Your task to perform on an android device: turn on location history Image 0: 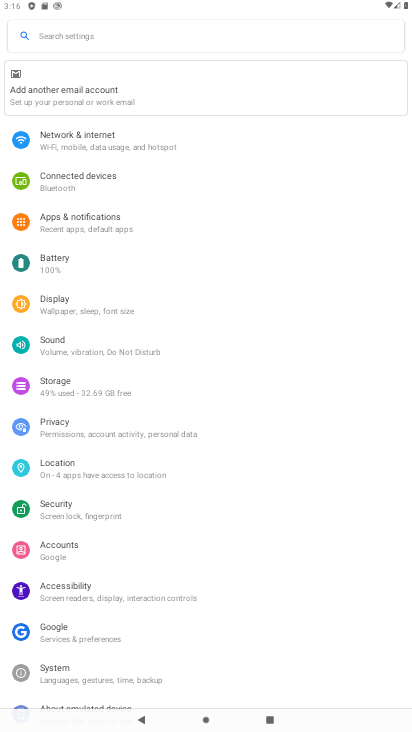
Step 0: press home button
Your task to perform on an android device: turn on location history Image 1: 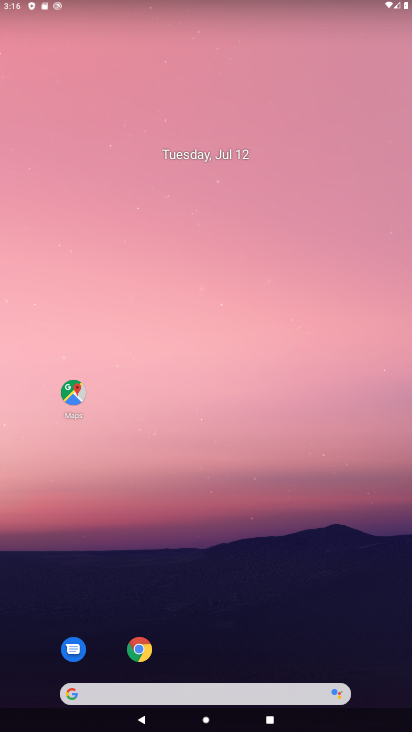
Step 1: drag from (202, 625) to (256, 7)
Your task to perform on an android device: turn on location history Image 2: 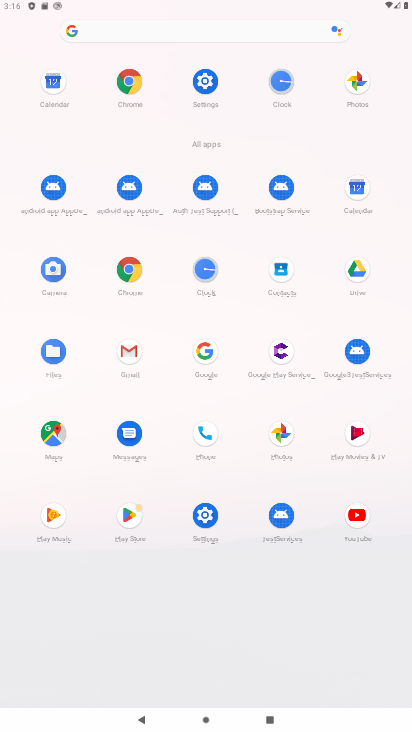
Step 2: click (202, 75)
Your task to perform on an android device: turn on location history Image 3: 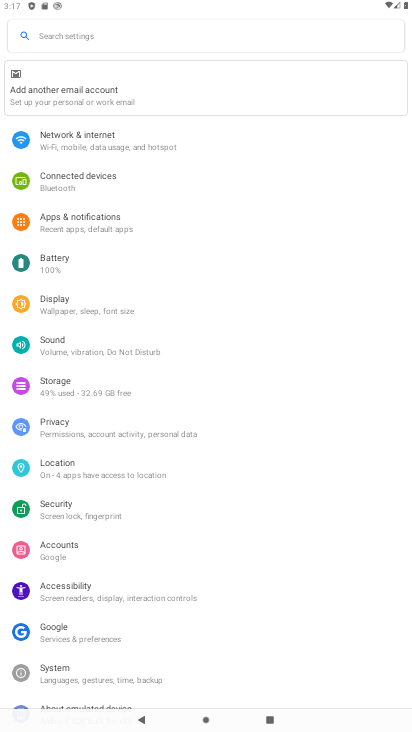
Step 3: click (88, 460)
Your task to perform on an android device: turn on location history Image 4: 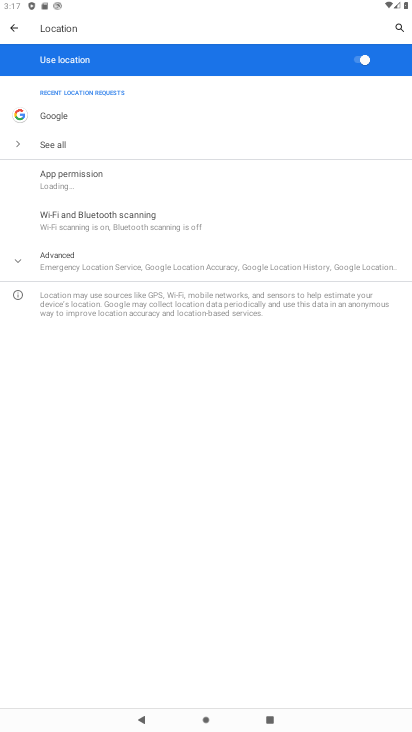
Step 4: click (40, 264)
Your task to perform on an android device: turn on location history Image 5: 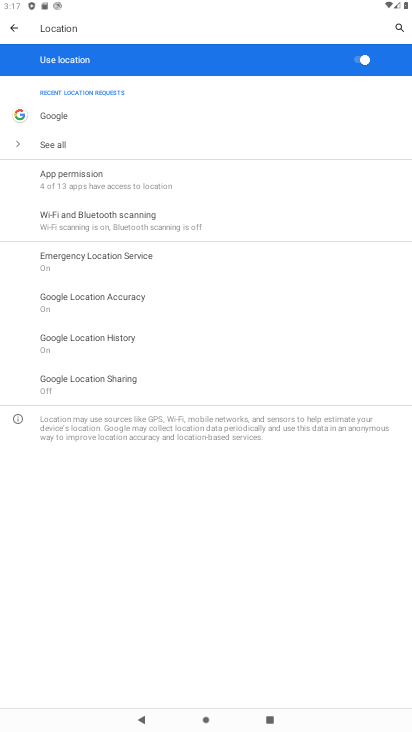
Step 5: click (112, 340)
Your task to perform on an android device: turn on location history Image 6: 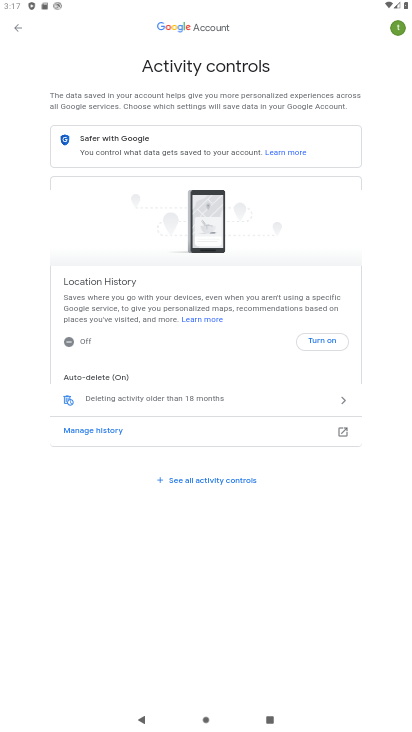
Step 6: click (323, 342)
Your task to perform on an android device: turn on location history Image 7: 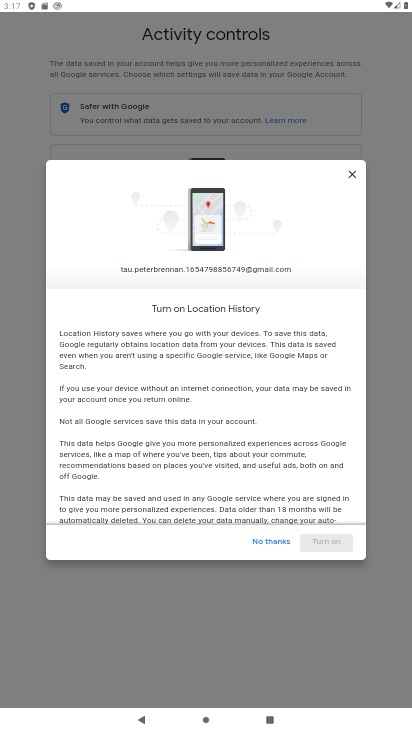
Step 7: drag from (312, 463) to (318, 47)
Your task to perform on an android device: turn on location history Image 8: 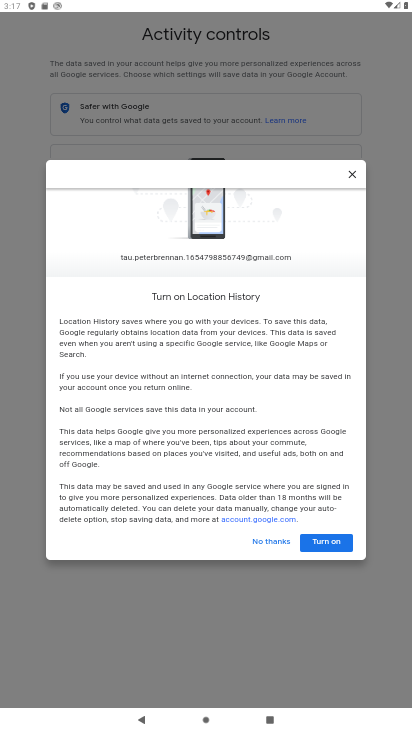
Step 8: click (320, 547)
Your task to perform on an android device: turn on location history Image 9: 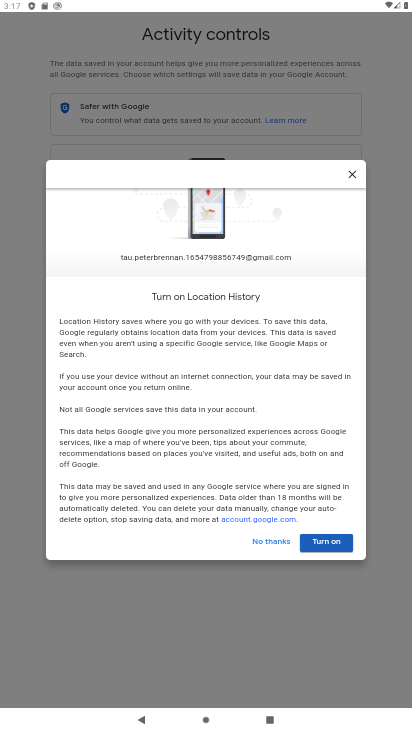
Step 9: click (332, 540)
Your task to perform on an android device: turn on location history Image 10: 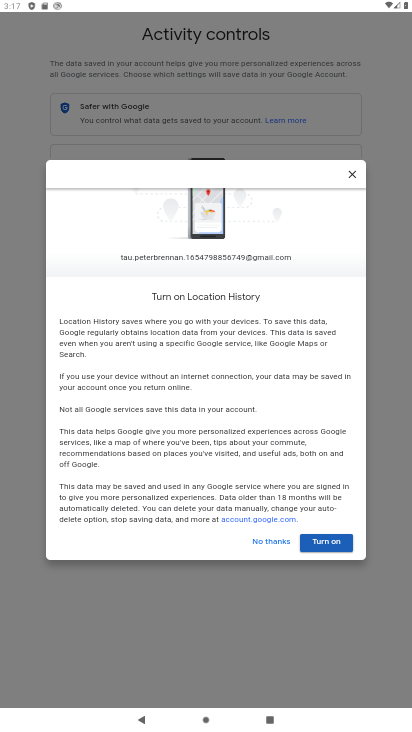
Step 10: click (326, 545)
Your task to perform on an android device: turn on location history Image 11: 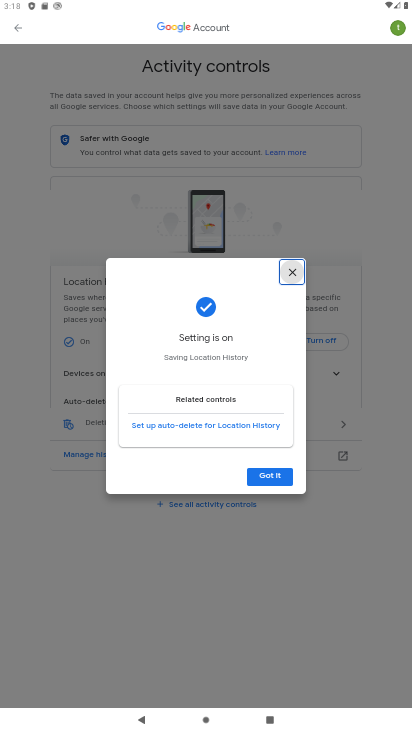
Step 11: click (268, 475)
Your task to perform on an android device: turn on location history Image 12: 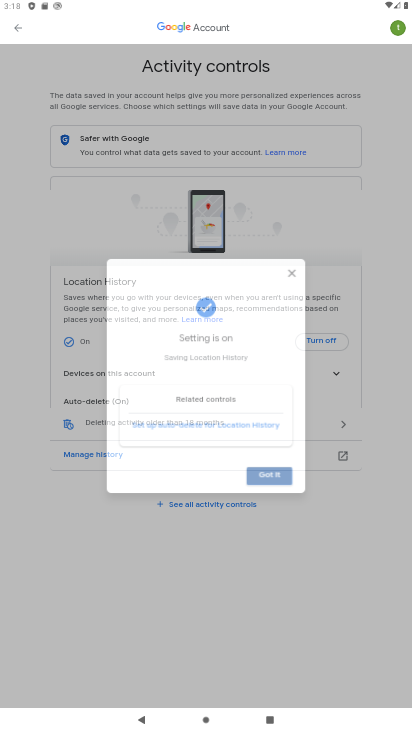
Step 12: task complete